Your task to perform on an android device: check storage Image 0: 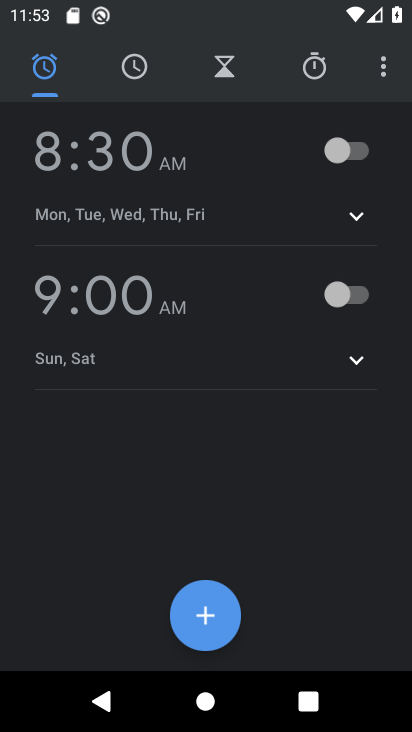
Step 0: press home button
Your task to perform on an android device: check storage Image 1: 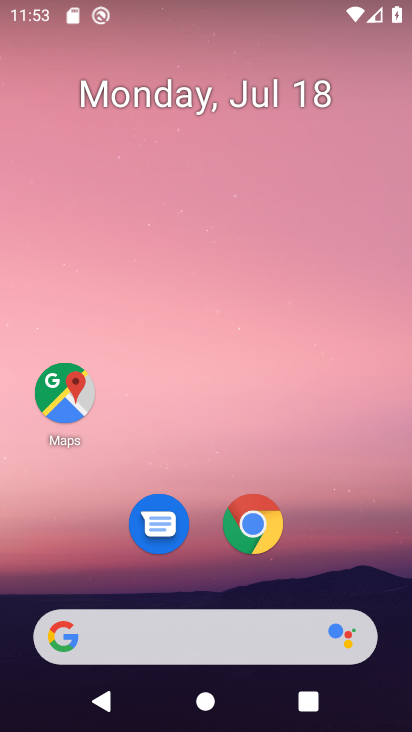
Step 1: drag from (316, 512) to (331, 38)
Your task to perform on an android device: check storage Image 2: 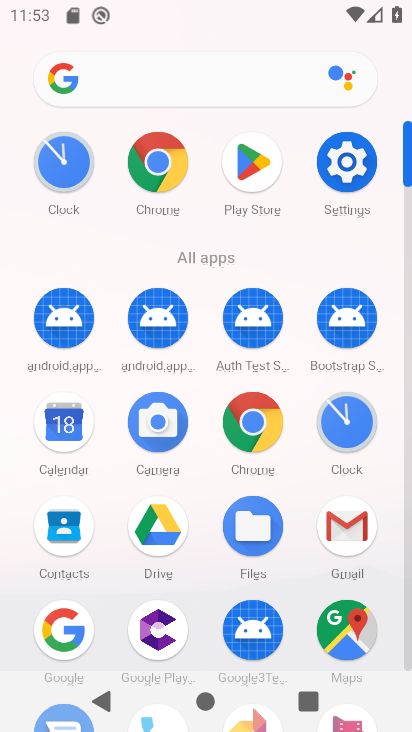
Step 2: click (350, 158)
Your task to perform on an android device: check storage Image 3: 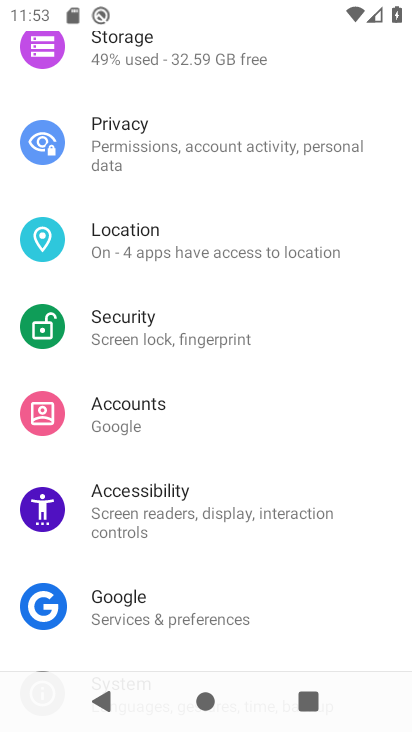
Step 3: drag from (230, 213) to (189, 603)
Your task to perform on an android device: check storage Image 4: 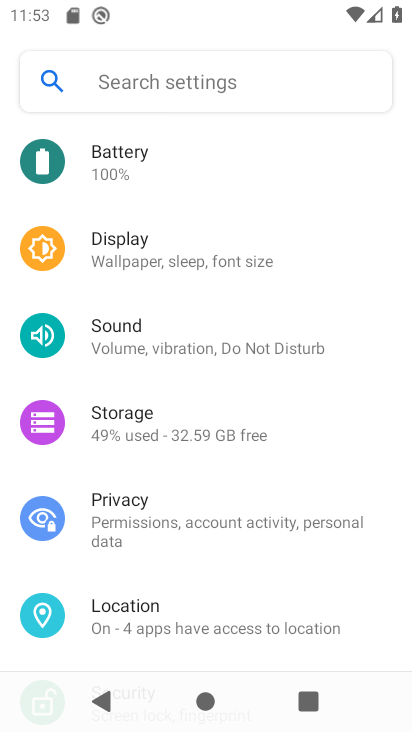
Step 4: click (215, 427)
Your task to perform on an android device: check storage Image 5: 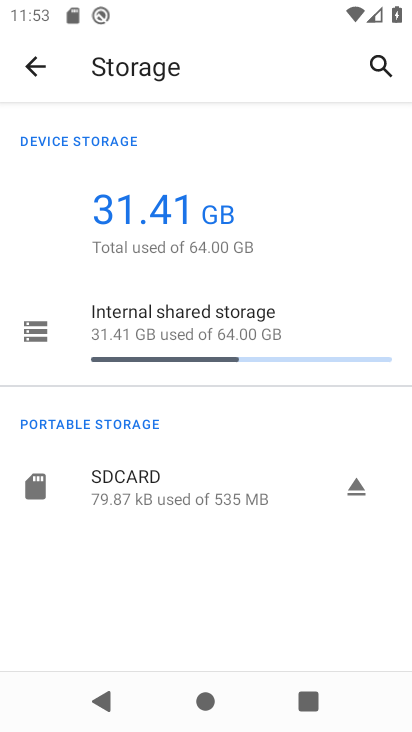
Step 5: task complete